Your task to perform on an android device: toggle airplane mode Image 0: 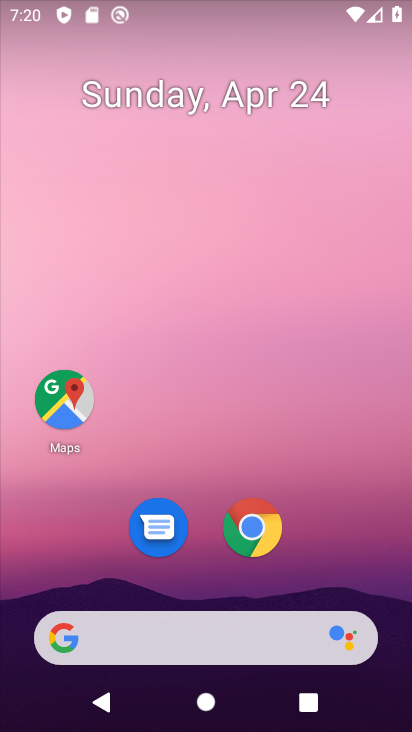
Step 0: drag from (287, 8) to (268, 402)
Your task to perform on an android device: toggle airplane mode Image 1: 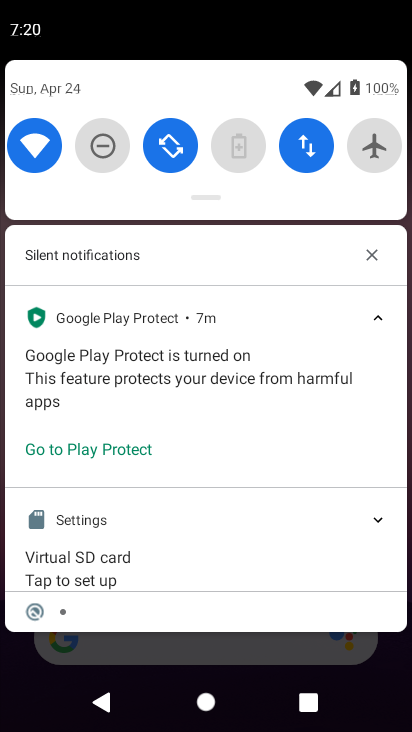
Step 1: click (375, 137)
Your task to perform on an android device: toggle airplane mode Image 2: 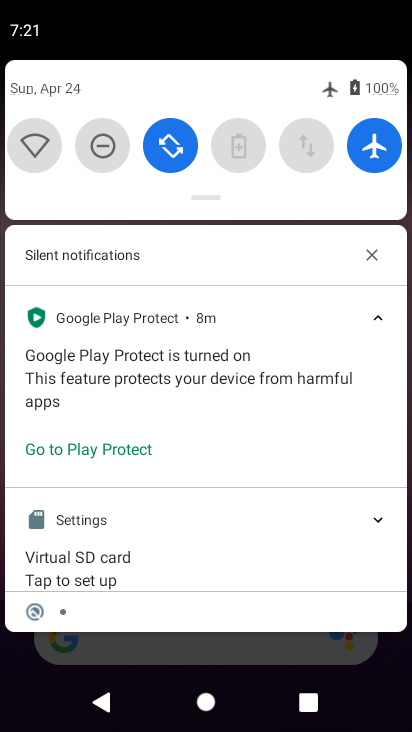
Step 2: task complete